Your task to perform on an android device: change the clock display to analog Image 0: 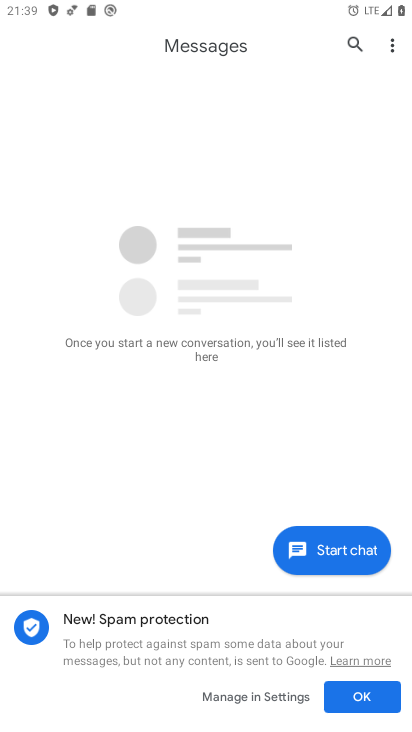
Step 0: press home button
Your task to perform on an android device: change the clock display to analog Image 1: 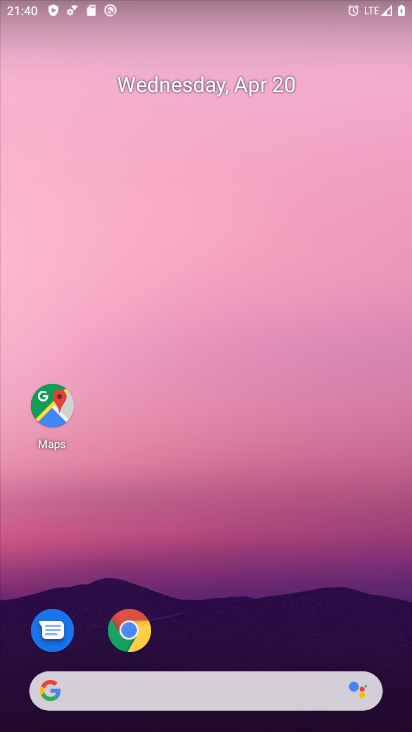
Step 1: drag from (224, 599) to (237, 187)
Your task to perform on an android device: change the clock display to analog Image 2: 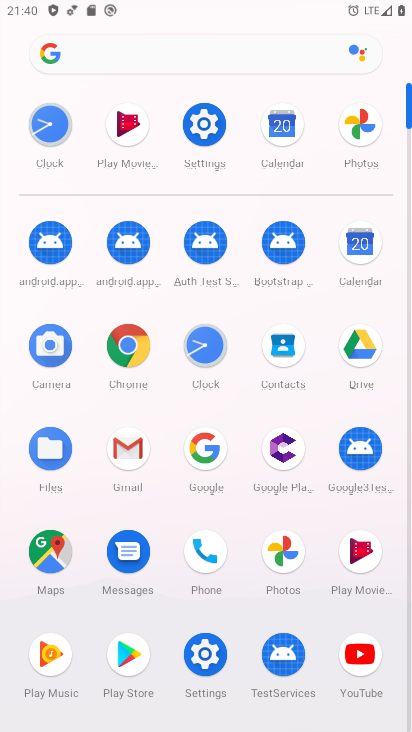
Step 2: click (198, 353)
Your task to perform on an android device: change the clock display to analog Image 3: 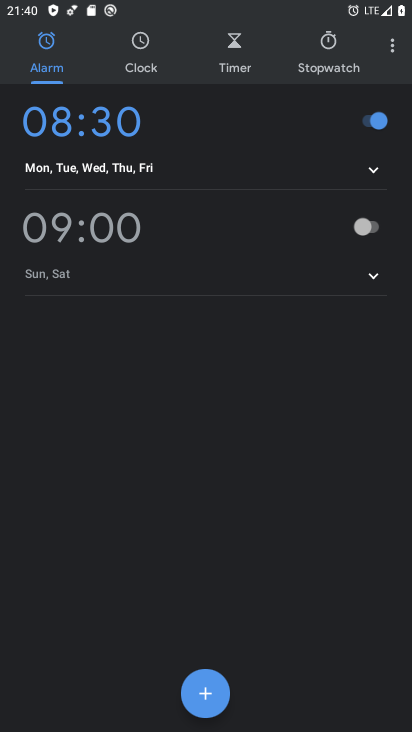
Step 3: click (390, 48)
Your task to perform on an android device: change the clock display to analog Image 4: 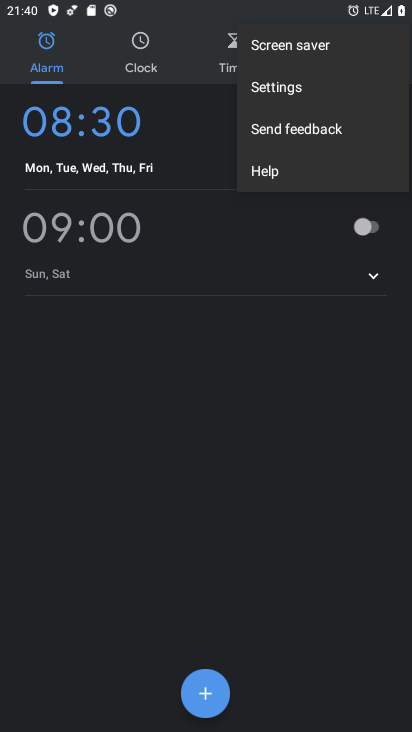
Step 4: click (291, 89)
Your task to perform on an android device: change the clock display to analog Image 5: 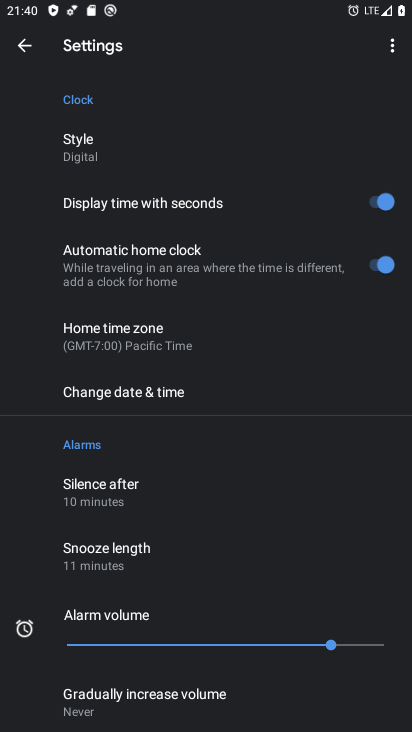
Step 5: click (102, 153)
Your task to perform on an android device: change the clock display to analog Image 6: 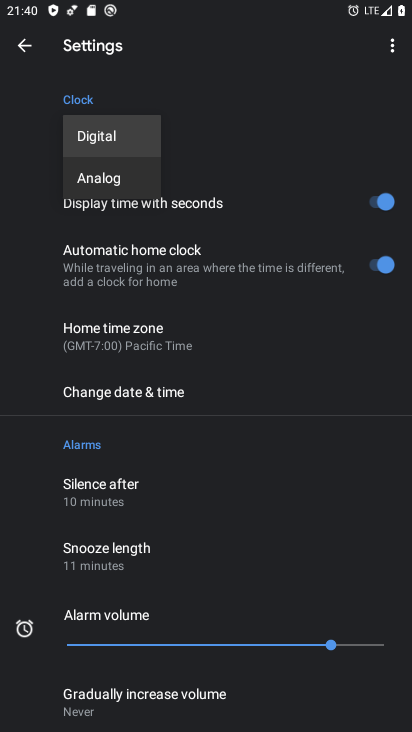
Step 6: click (115, 176)
Your task to perform on an android device: change the clock display to analog Image 7: 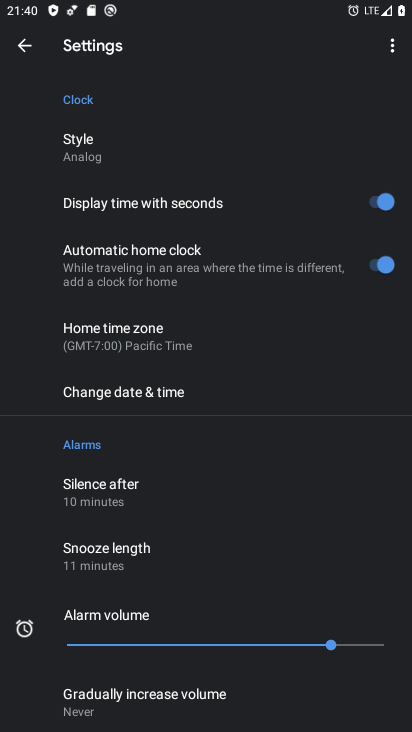
Step 7: task complete